Your task to perform on an android device: turn on translation in the chrome app Image 0: 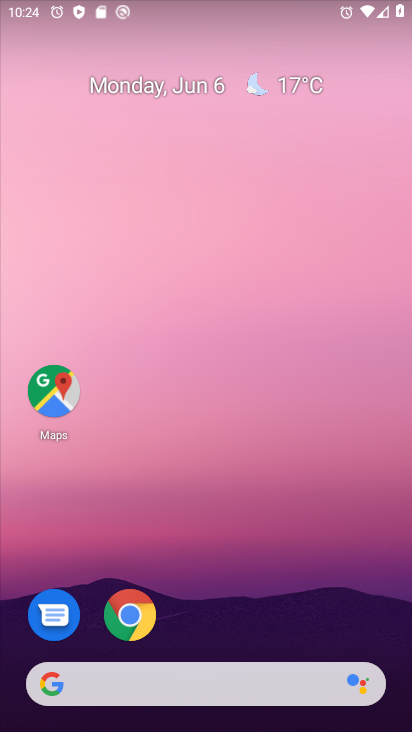
Step 0: click (119, 627)
Your task to perform on an android device: turn on translation in the chrome app Image 1: 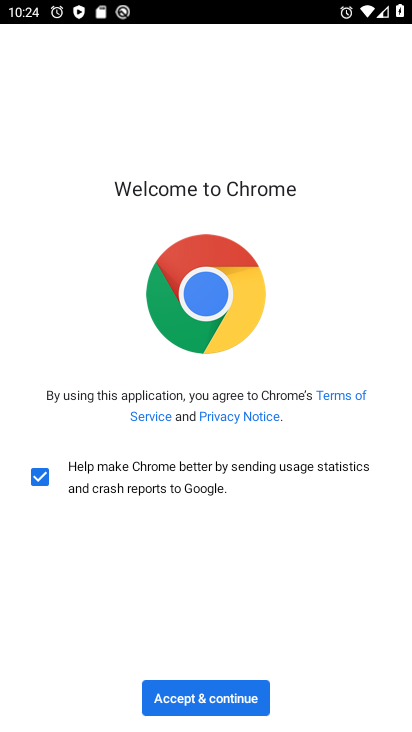
Step 1: click (210, 706)
Your task to perform on an android device: turn on translation in the chrome app Image 2: 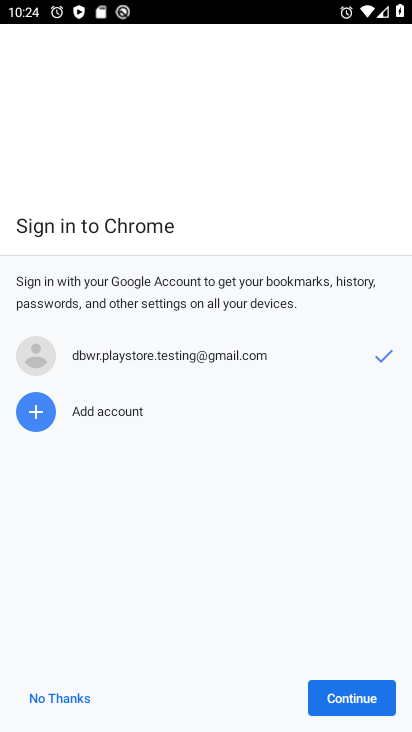
Step 2: click (371, 701)
Your task to perform on an android device: turn on translation in the chrome app Image 3: 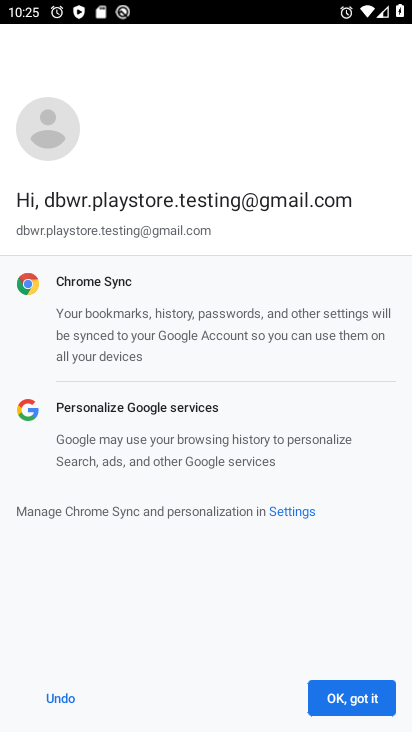
Step 3: click (408, 697)
Your task to perform on an android device: turn on translation in the chrome app Image 4: 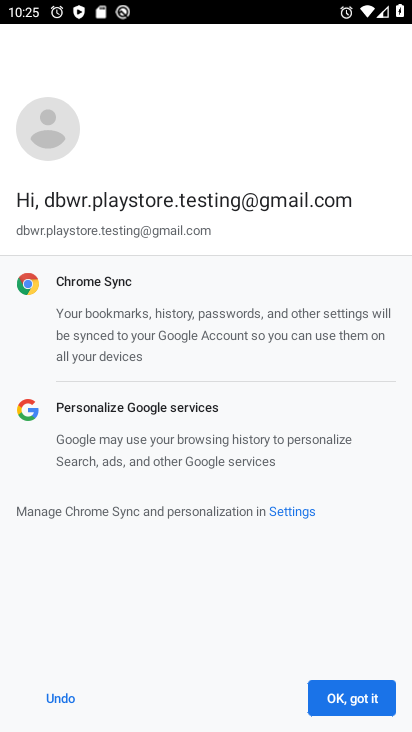
Step 4: click (374, 697)
Your task to perform on an android device: turn on translation in the chrome app Image 5: 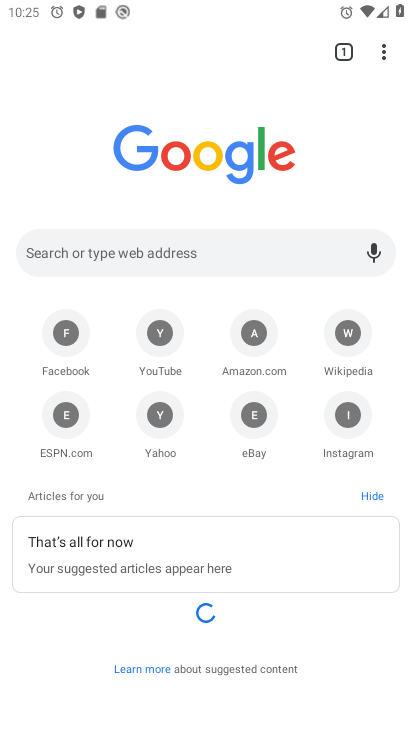
Step 5: drag from (393, 40) to (317, 448)
Your task to perform on an android device: turn on translation in the chrome app Image 6: 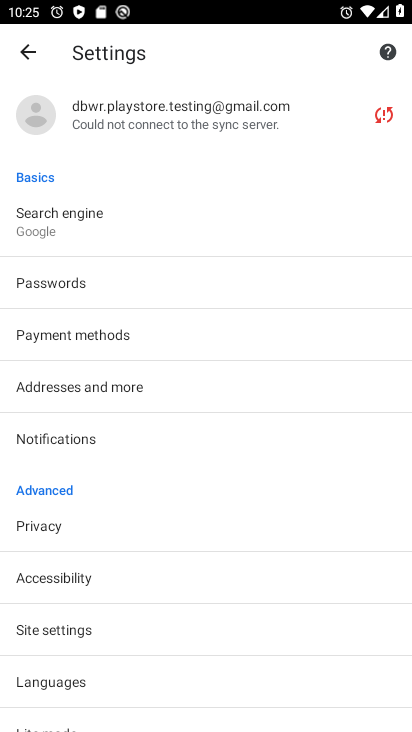
Step 6: click (176, 677)
Your task to perform on an android device: turn on translation in the chrome app Image 7: 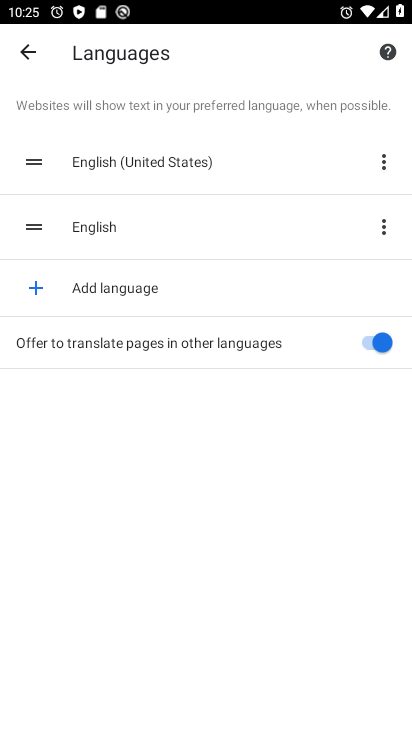
Step 7: task complete